Your task to perform on an android device: open a bookmark in the chrome app Image 0: 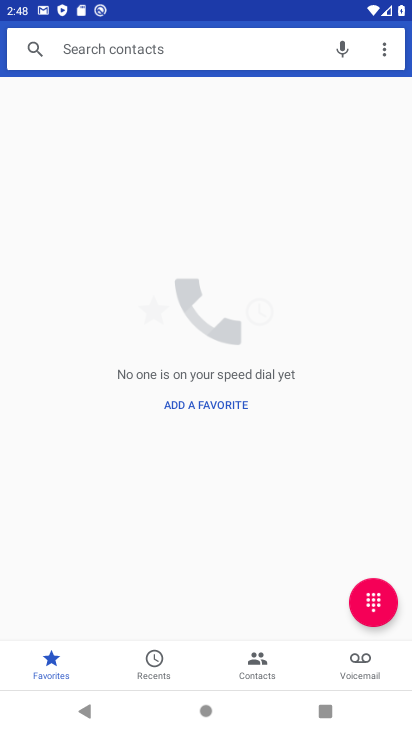
Step 0: press back button
Your task to perform on an android device: open a bookmark in the chrome app Image 1: 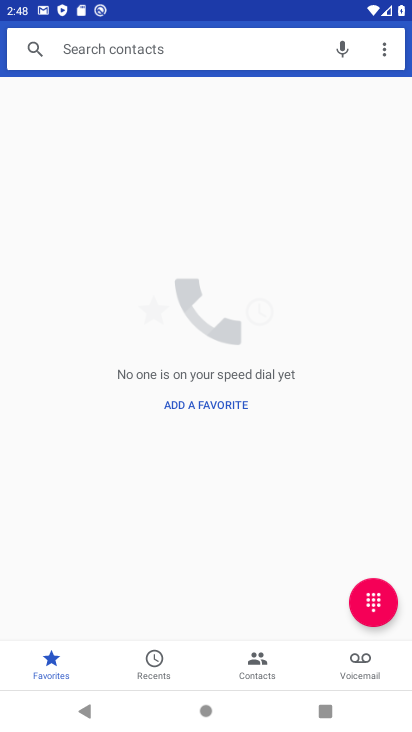
Step 1: press back button
Your task to perform on an android device: open a bookmark in the chrome app Image 2: 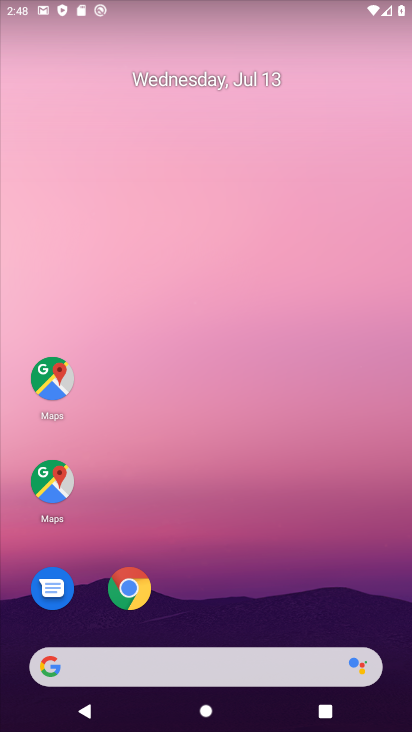
Step 2: drag from (201, 102) to (191, 62)
Your task to perform on an android device: open a bookmark in the chrome app Image 3: 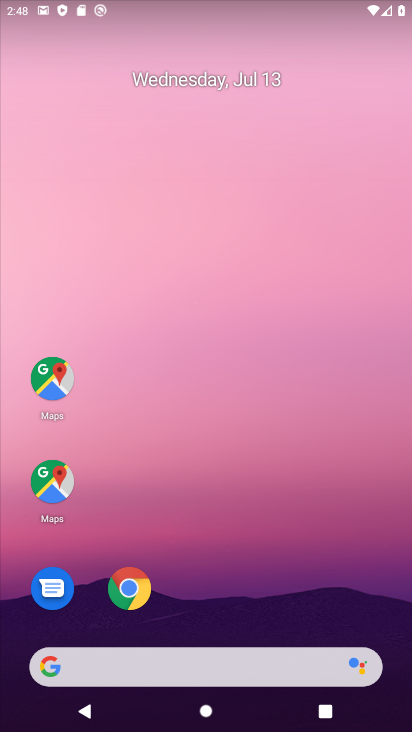
Step 3: drag from (251, 684) to (185, 9)
Your task to perform on an android device: open a bookmark in the chrome app Image 4: 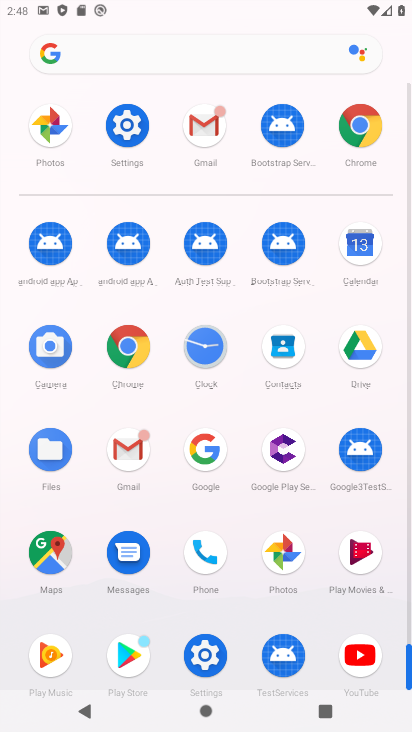
Step 4: drag from (229, 546) to (162, 95)
Your task to perform on an android device: open a bookmark in the chrome app Image 5: 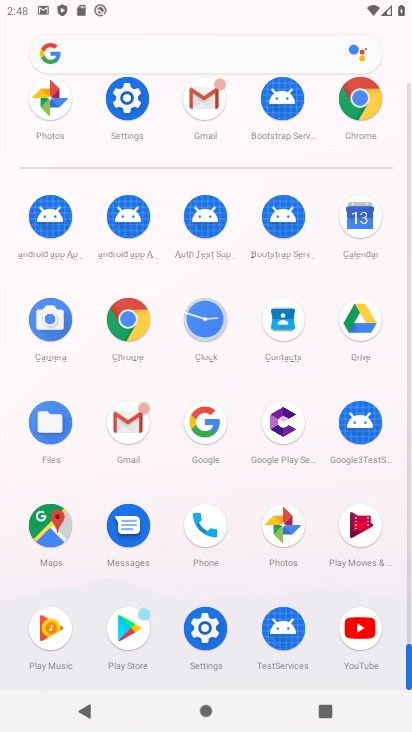
Step 5: click (370, 90)
Your task to perform on an android device: open a bookmark in the chrome app Image 6: 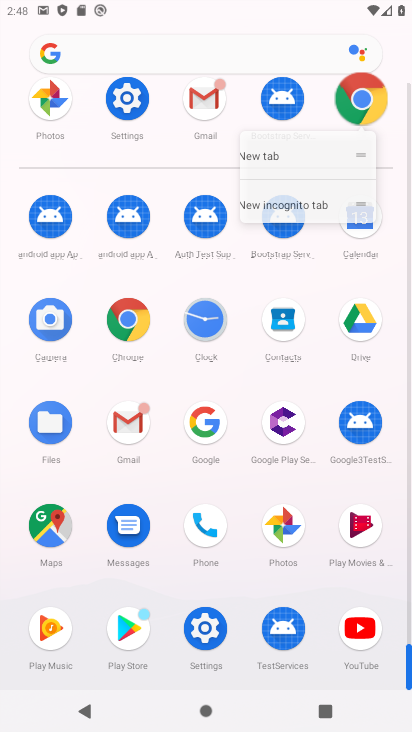
Step 6: click (364, 97)
Your task to perform on an android device: open a bookmark in the chrome app Image 7: 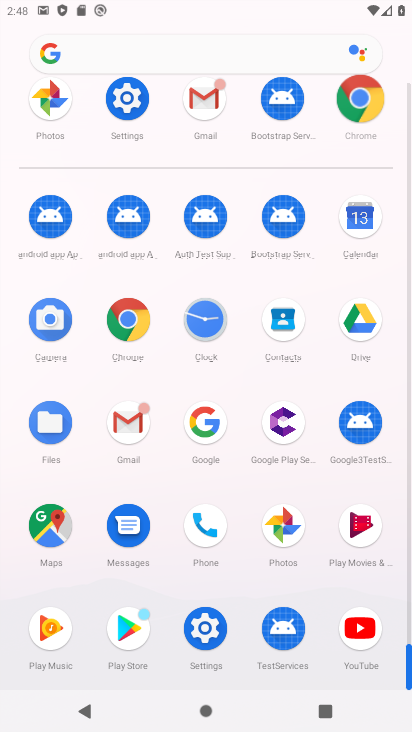
Step 7: click (365, 99)
Your task to perform on an android device: open a bookmark in the chrome app Image 8: 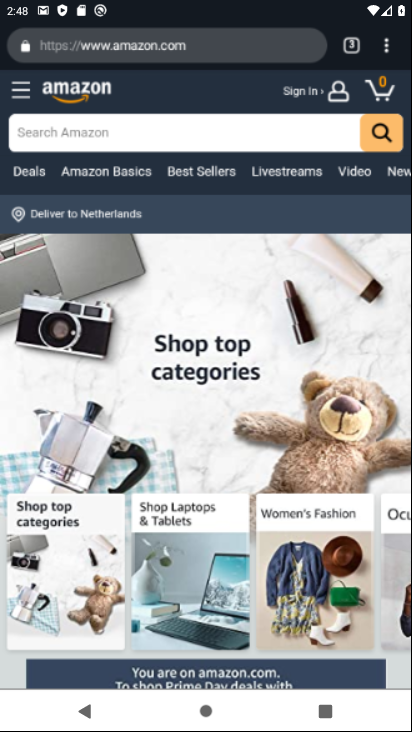
Step 8: click (366, 100)
Your task to perform on an android device: open a bookmark in the chrome app Image 9: 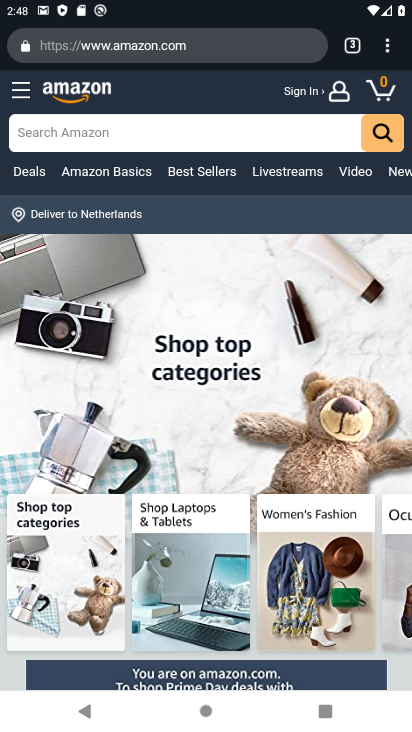
Step 9: task complete